Your task to perform on an android device: toggle improve location accuracy Image 0: 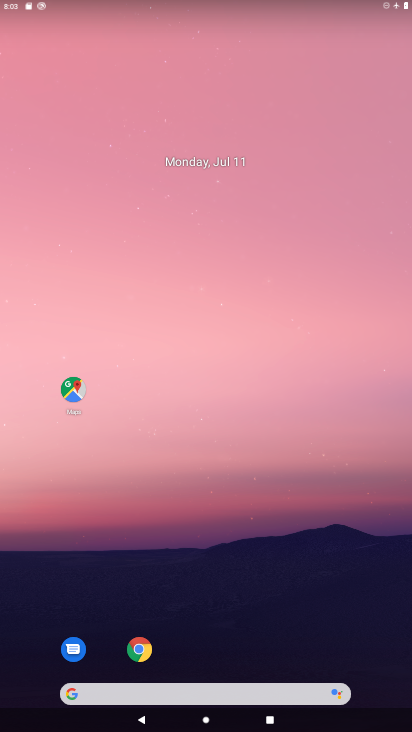
Step 0: drag from (227, 688) to (283, 172)
Your task to perform on an android device: toggle improve location accuracy Image 1: 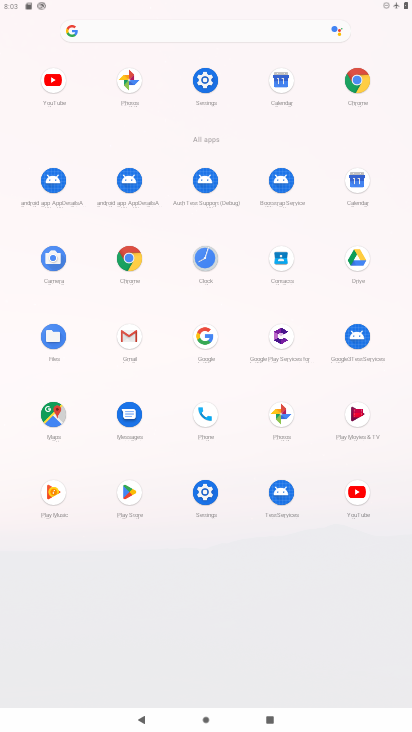
Step 1: click (204, 493)
Your task to perform on an android device: toggle improve location accuracy Image 2: 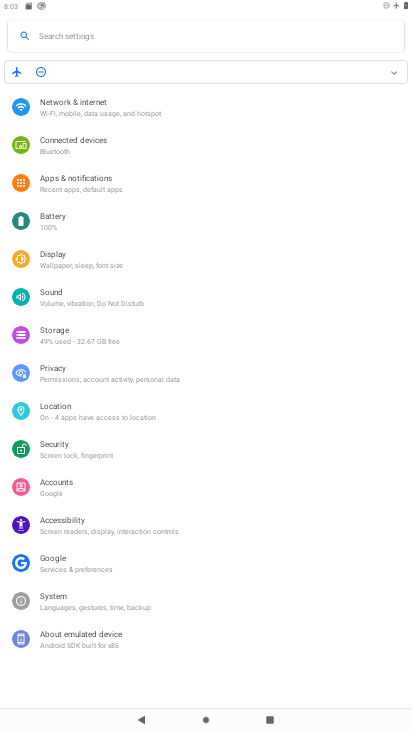
Step 2: click (84, 414)
Your task to perform on an android device: toggle improve location accuracy Image 3: 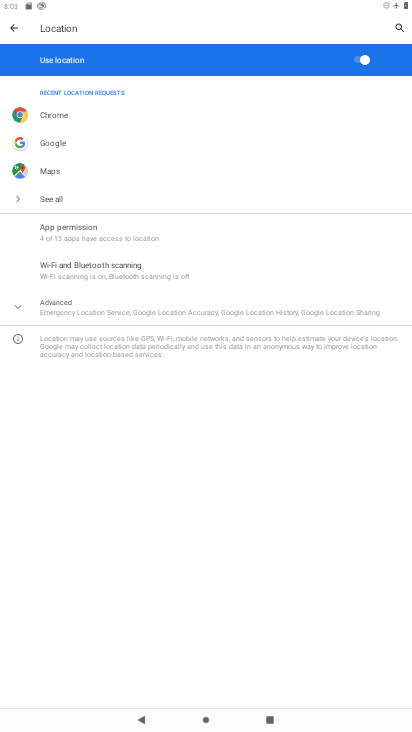
Step 3: click (98, 315)
Your task to perform on an android device: toggle improve location accuracy Image 4: 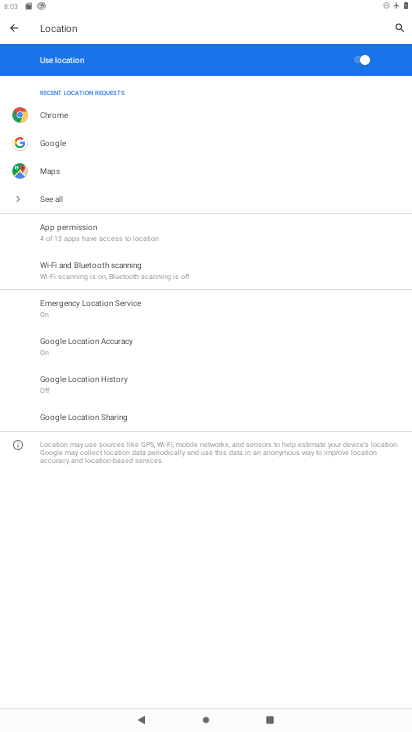
Step 4: click (129, 338)
Your task to perform on an android device: toggle improve location accuracy Image 5: 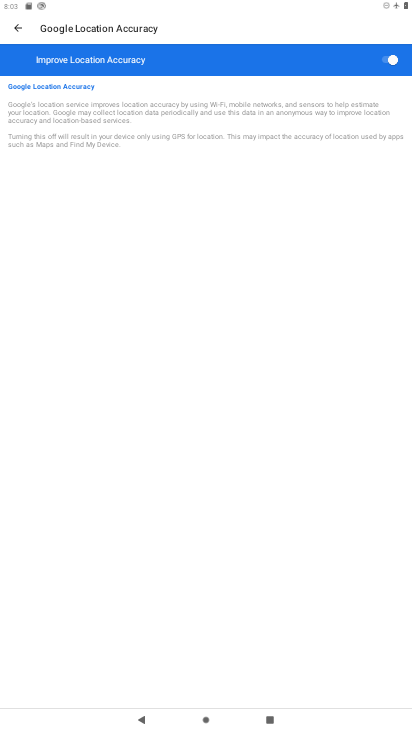
Step 5: click (390, 61)
Your task to perform on an android device: toggle improve location accuracy Image 6: 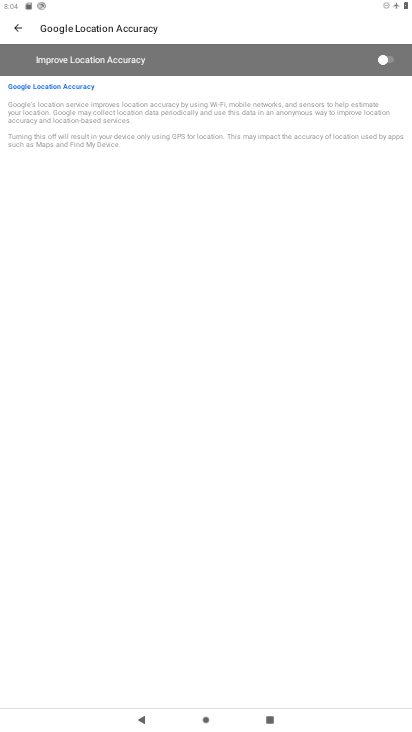
Step 6: task complete